Your task to perform on an android device: Go to eBay Image 0: 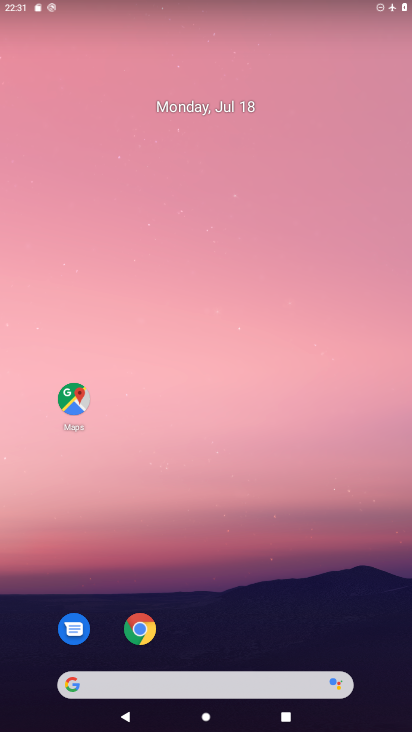
Step 0: drag from (342, 596) to (266, 23)
Your task to perform on an android device: Go to eBay Image 1: 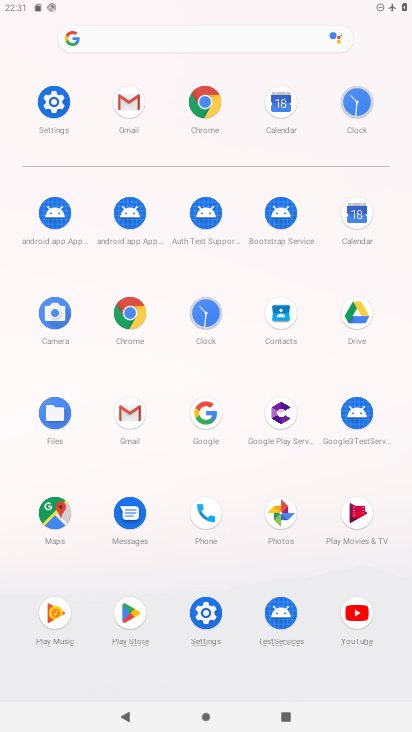
Step 1: click (209, 98)
Your task to perform on an android device: Go to eBay Image 2: 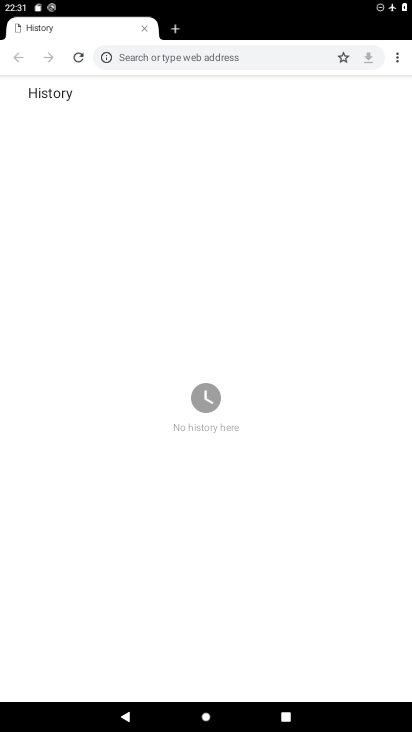
Step 2: click (216, 64)
Your task to perform on an android device: Go to eBay Image 3: 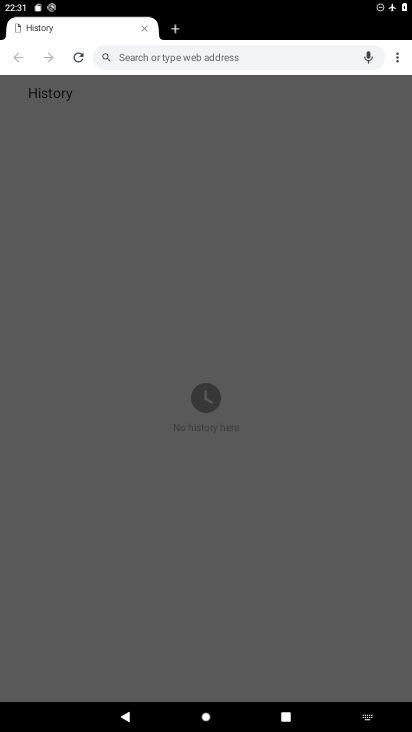
Step 3: type "ebay"
Your task to perform on an android device: Go to eBay Image 4: 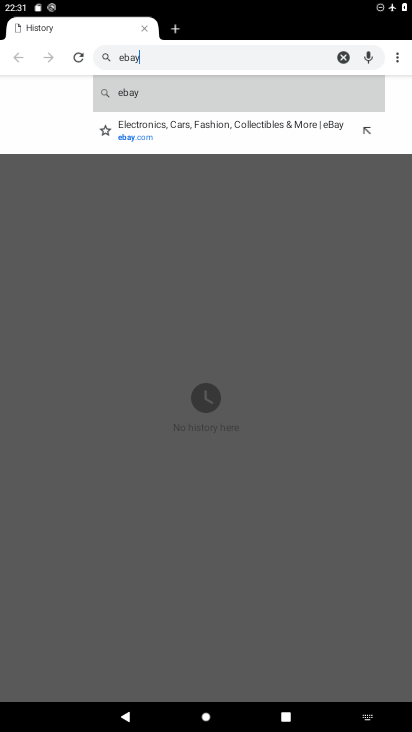
Step 4: click (172, 119)
Your task to perform on an android device: Go to eBay Image 5: 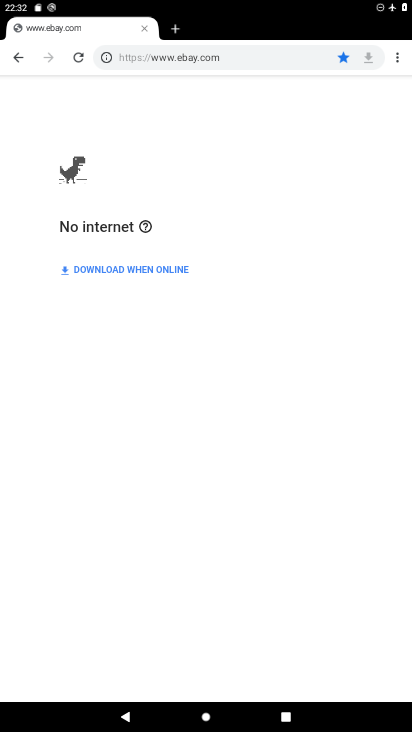
Step 5: task complete